Your task to perform on an android device: Go to Yahoo.com Image 0: 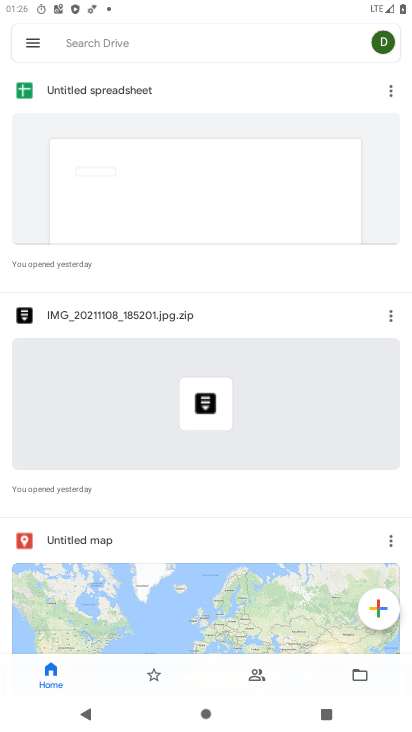
Step 0: press home button
Your task to perform on an android device: Go to Yahoo.com Image 1: 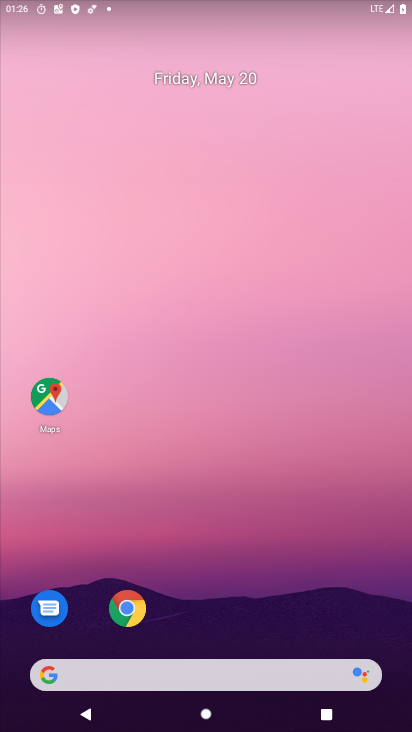
Step 1: drag from (351, 638) to (264, 170)
Your task to perform on an android device: Go to Yahoo.com Image 2: 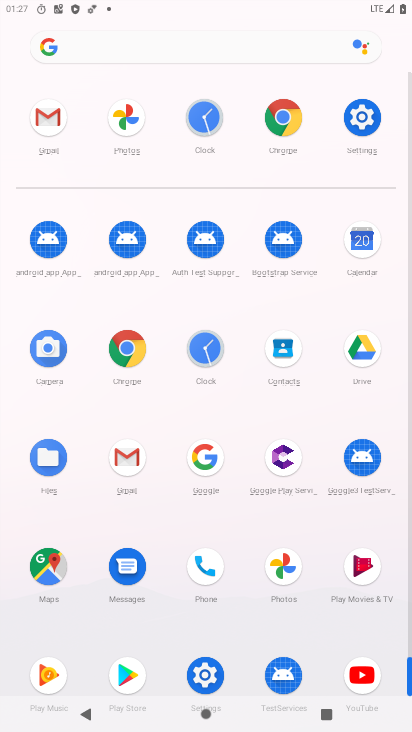
Step 2: click (130, 367)
Your task to perform on an android device: Go to Yahoo.com Image 3: 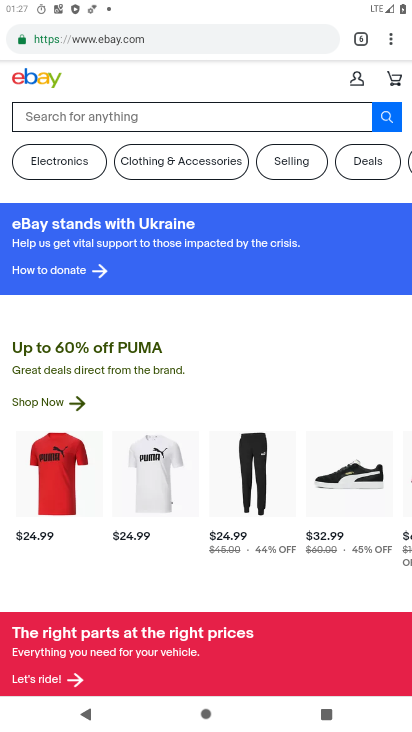
Step 3: click (188, 41)
Your task to perform on an android device: Go to Yahoo.com Image 4: 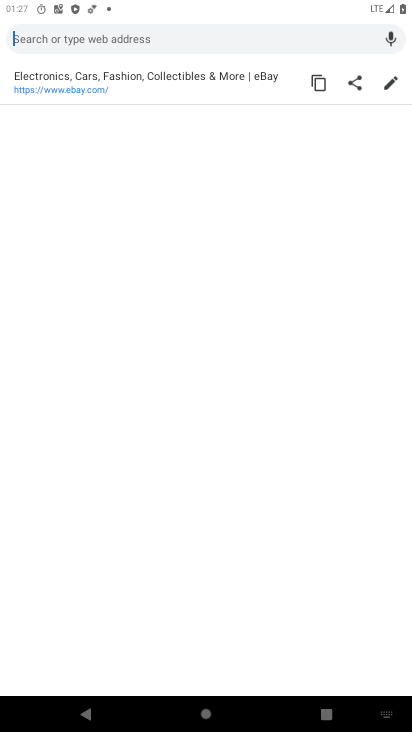
Step 4: type "yahoo.com"
Your task to perform on an android device: Go to Yahoo.com Image 5: 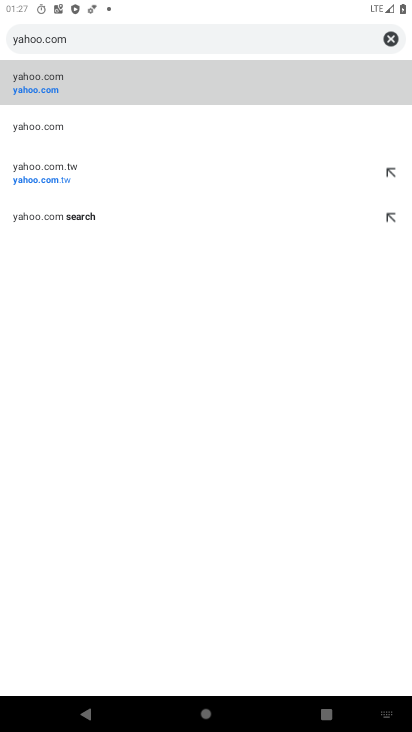
Step 5: click (73, 97)
Your task to perform on an android device: Go to Yahoo.com Image 6: 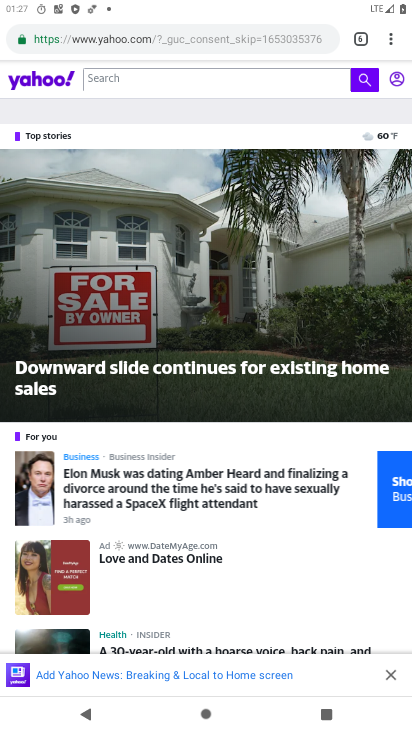
Step 6: task complete